Your task to perform on an android device: Go to battery settings Image 0: 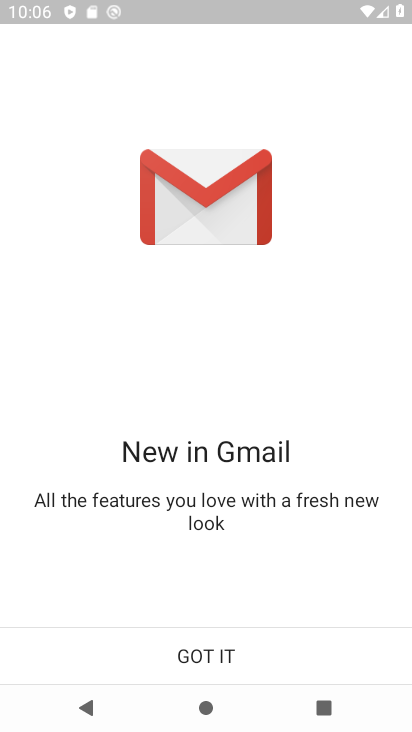
Step 0: press home button
Your task to perform on an android device: Go to battery settings Image 1: 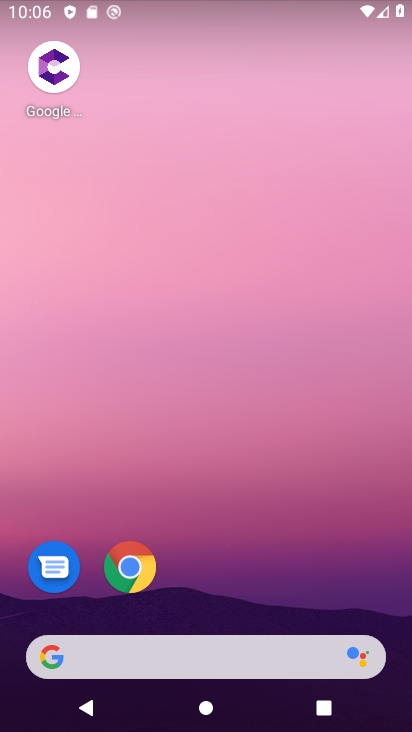
Step 1: drag from (248, 643) to (409, 10)
Your task to perform on an android device: Go to battery settings Image 2: 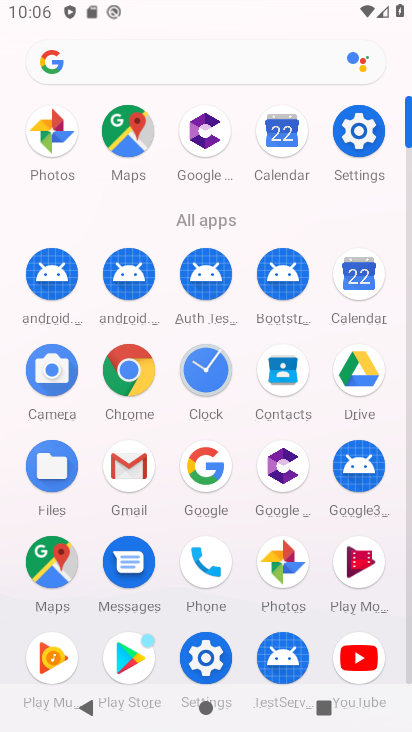
Step 2: click (365, 135)
Your task to perform on an android device: Go to battery settings Image 3: 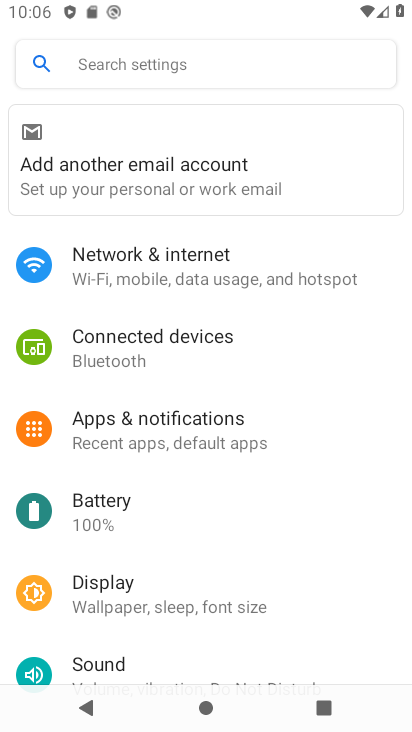
Step 3: click (124, 516)
Your task to perform on an android device: Go to battery settings Image 4: 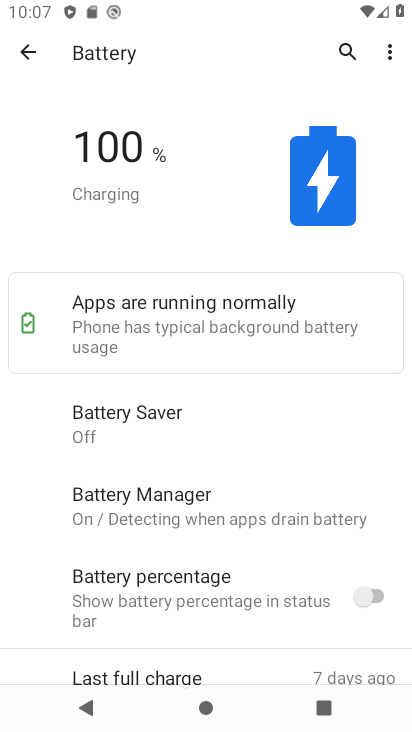
Step 4: task complete